Your task to perform on an android device: Open Chrome and go to settings Image 0: 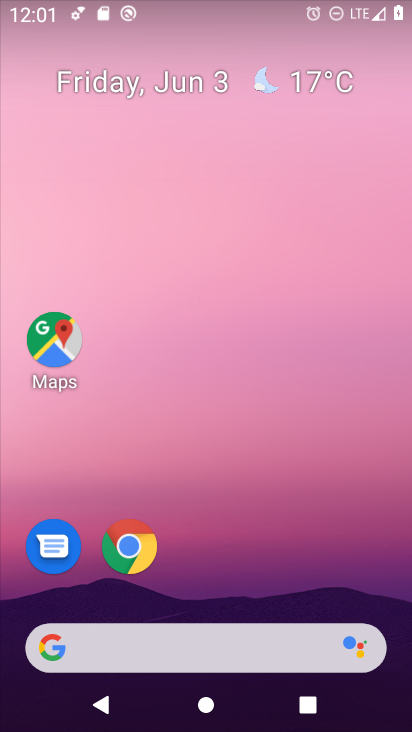
Step 0: drag from (275, 314) to (210, 22)
Your task to perform on an android device: Open Chrome and go to settings Image 1: 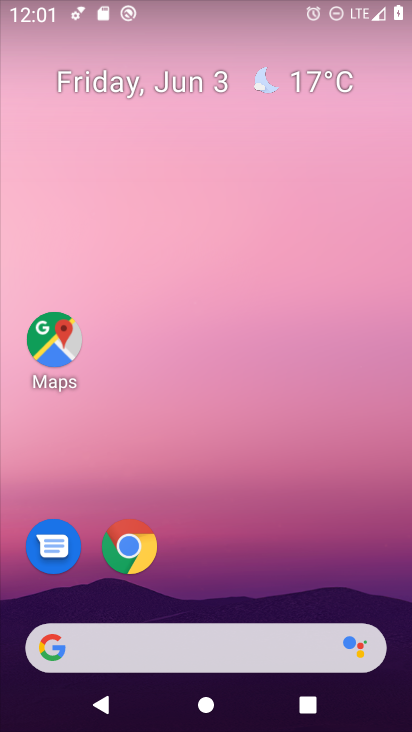
Step 1: drag from (308, 478) to (211, 32)
Your task to perform on an android device: Open Chrome and go to settings Image 2: 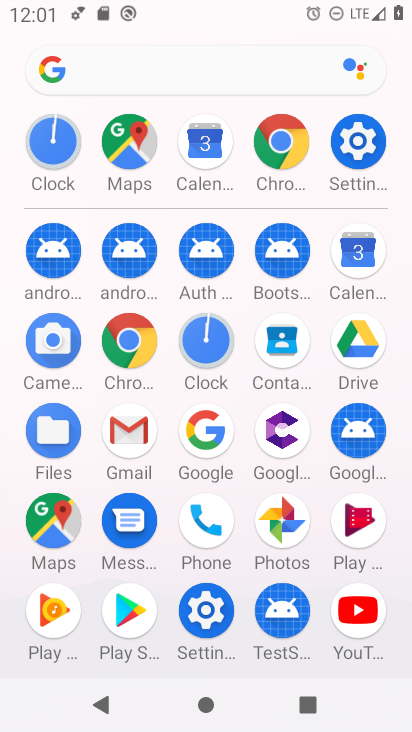
Step 2: drag from (23, 497) to (18, 199)
Your task to perform on an android device: Open Chrome and go to settings Image 3: 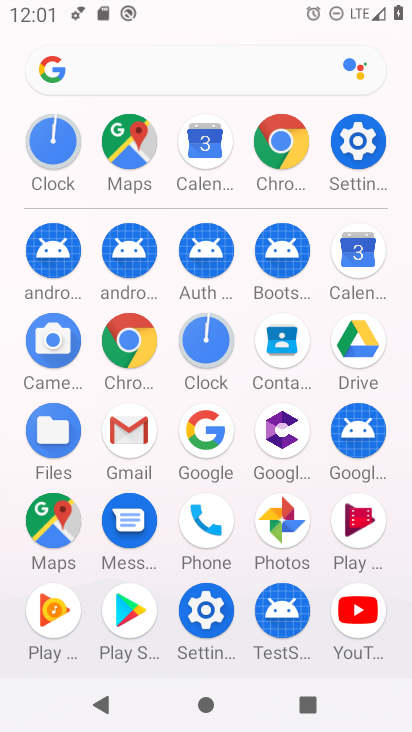
Step 3: click (131, 338)
Your task to perform on an android device: Open Chrome and go to settings Image 4: 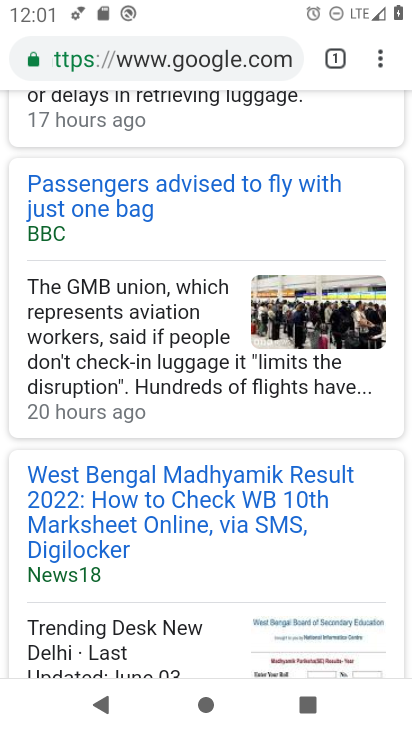
Step 4: drag from (382, 54) to (209, 567)
Your task to perform on an android device: Open Chrome and go to settings Image 5: 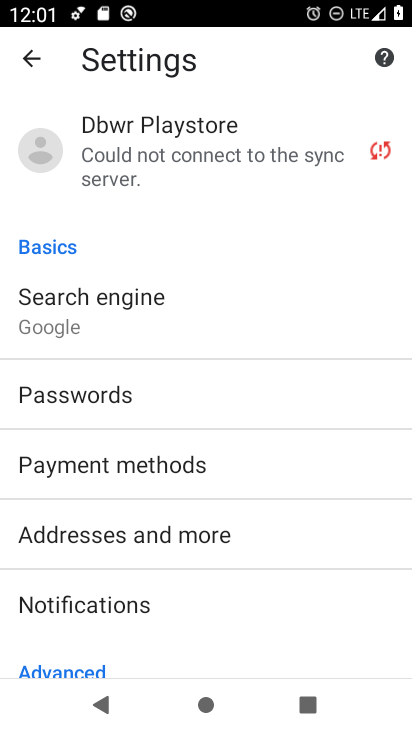
Step 5: drag from (259, 300) to (243, 174)
Your task to perform on an android device: Open Chrome and go to settings Image 6: 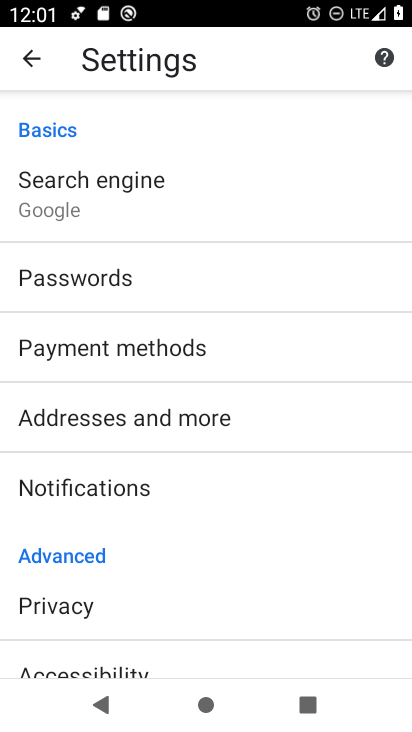
Step 6: click (253, 155)
Your task to perform on an android device: Open Chrome and go to settings Image 7: 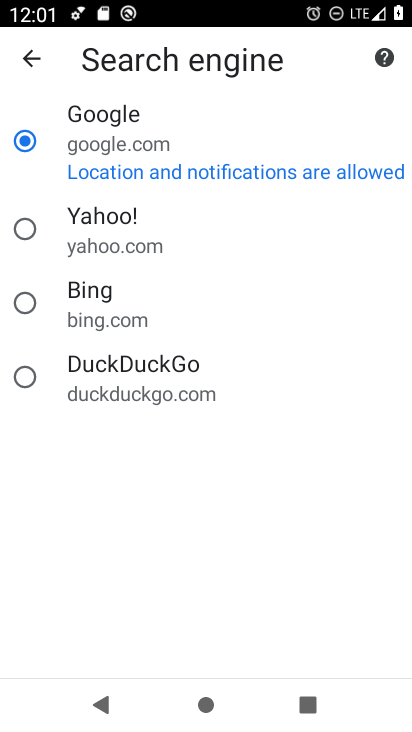
Step 7: click (36, 50)
Your task to perform on an android device: Open Chrome and go to settings Image 8: 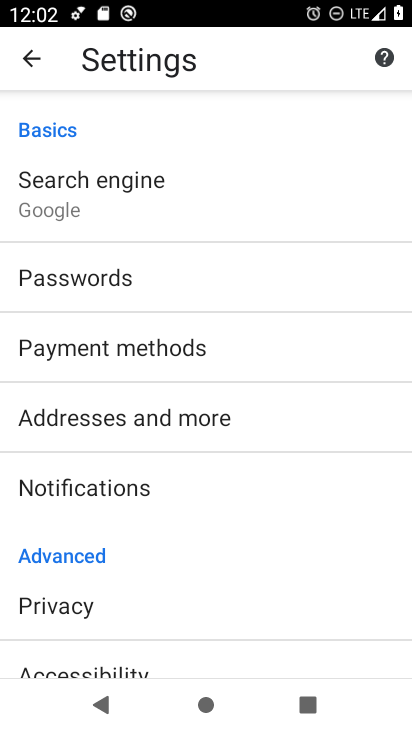
Step 8: task complete